Your task to perform on an android device: add a contact Image 0: 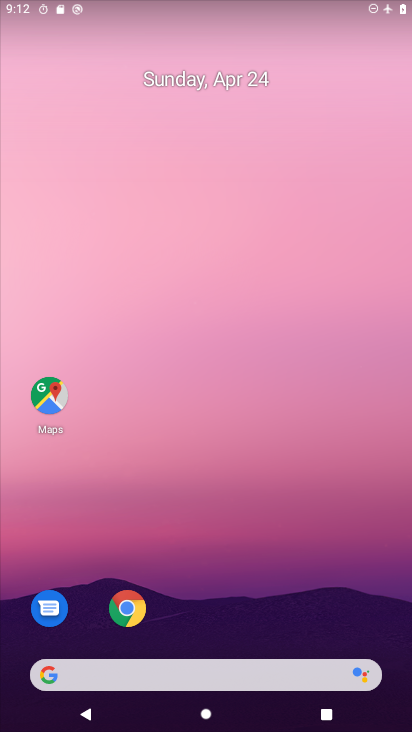
Step 0: drag from (308, 599) to (293, 89)
Your task to perform on an android device: add a contact Image 1: 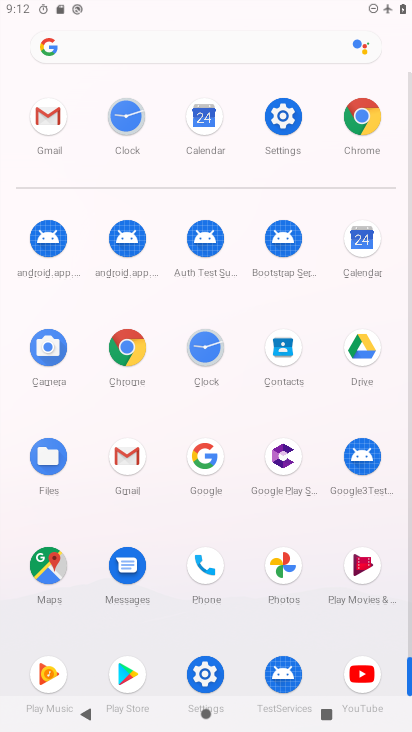
Step 1: click (281, 346)
Your task to perform on an android device: add a contact Image 2: 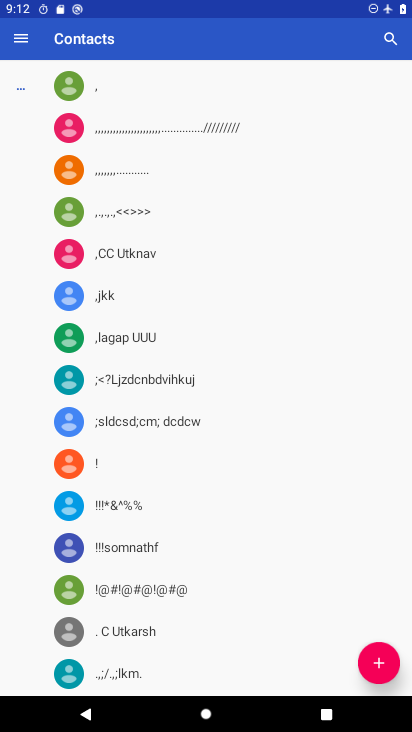
Step 2: click (377, 650)
Your task to perform on an android device: add a contact Image 3: 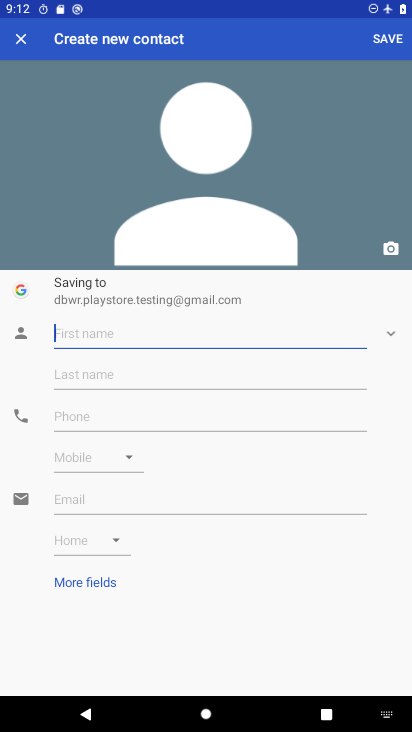
Step 3: type "Jai Bajrangbali"
Your task to perform on an android device: add a contact Image 4: 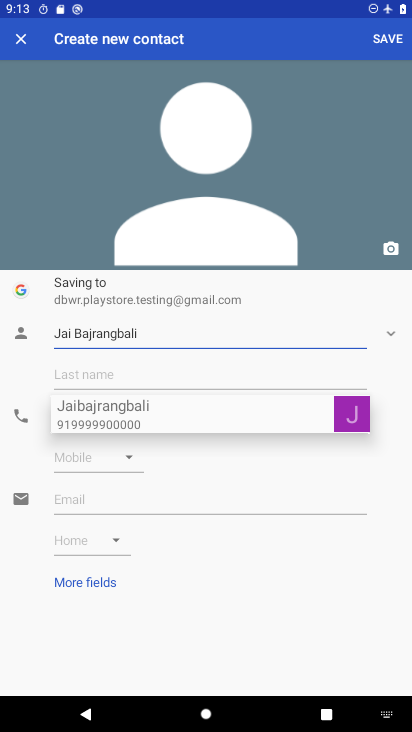
Step 4: click (259, 357)
Your task to perform on an android device: add a contact Image 5: 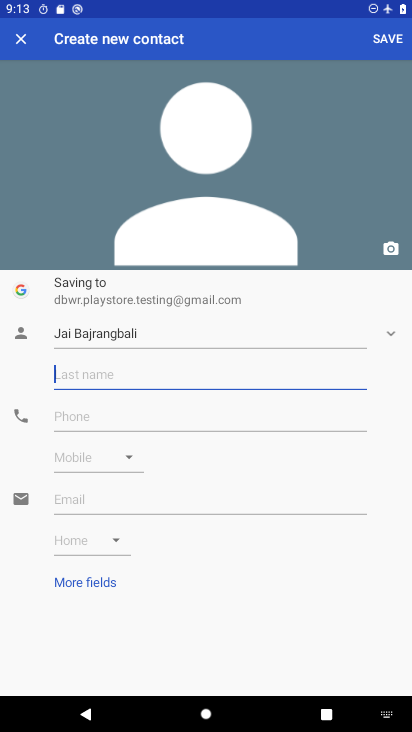
Step 5: click (241, 404)
Your task to perform on an android device: add a contact Image 6: 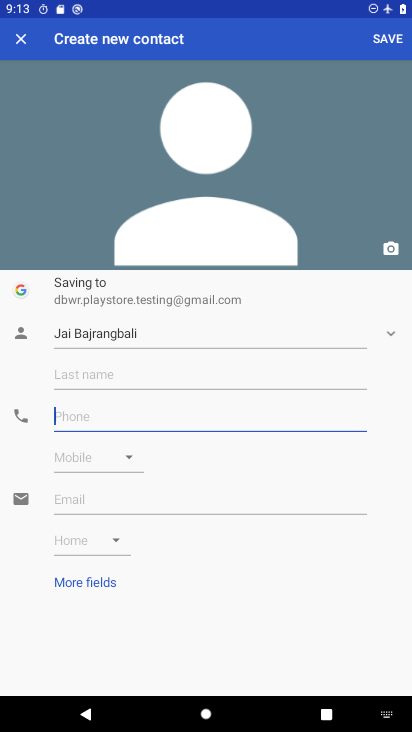
Step 6: type "9199999900000"
Your task to perform on an android device: add a contact Image 7: 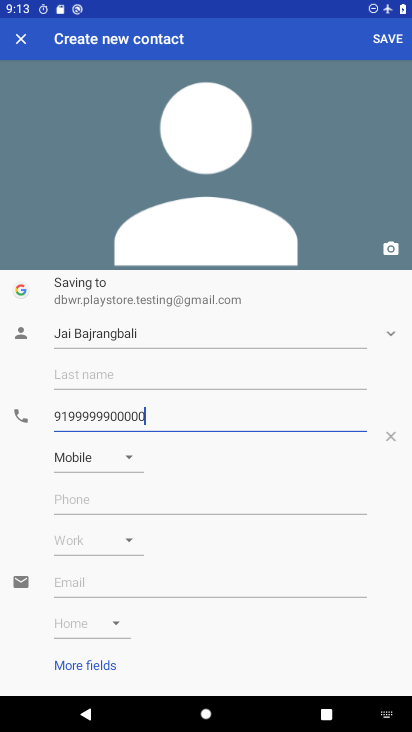
Step 7: click (386, 35)
Your task to perform on an android device: add a contact Image 8: 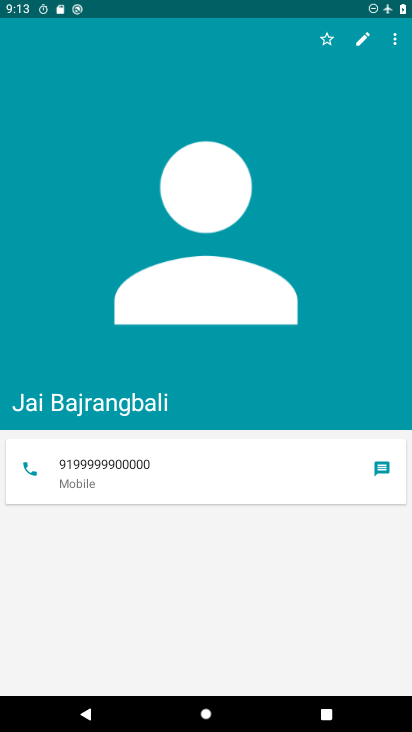
Step 8: task complete